Your task to perform on an android device: See recent photos Image 0: 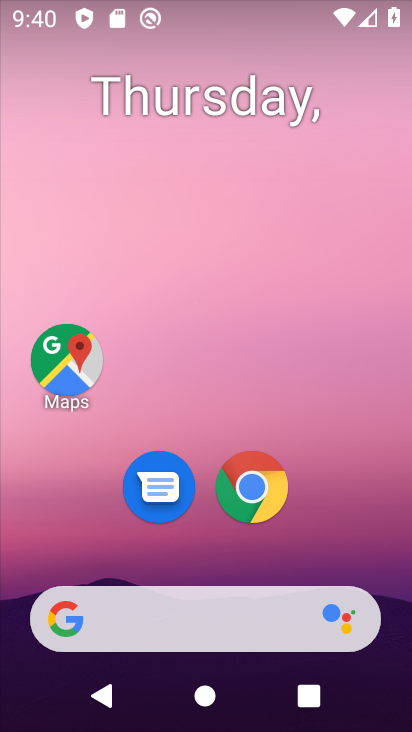
Step 0: drag from (328, 533) to (239, 267)
Your task to perform on an android device: See recent photos Image 1: 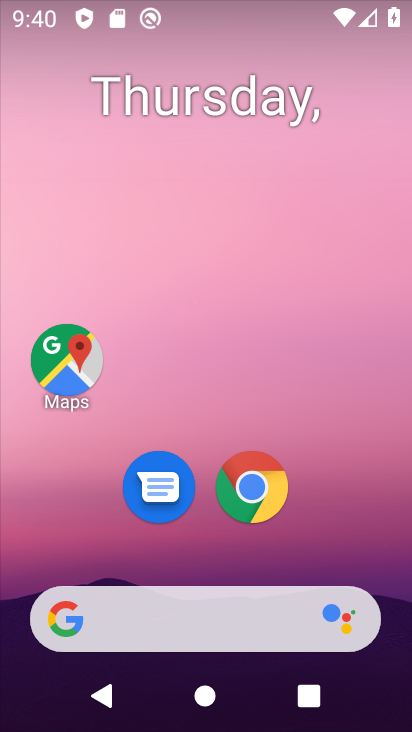
Step 1: drag from (333, 513) to (132, 119)
Your task to perform on an android device: See recent photos Image 2: 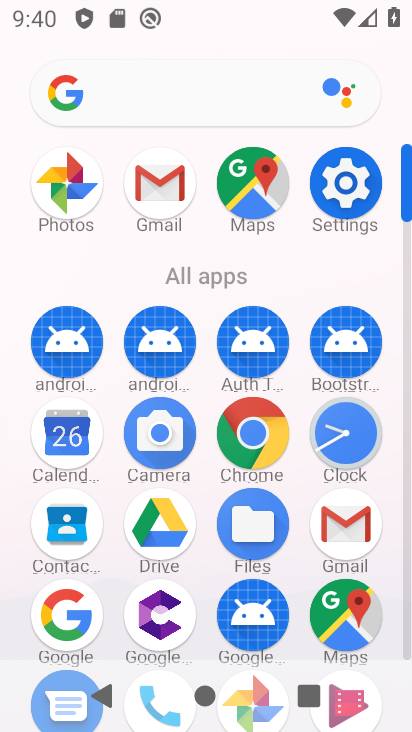
Step 2: click (68, 189)
Your task to perform on an android device: See recent photos Image 3: 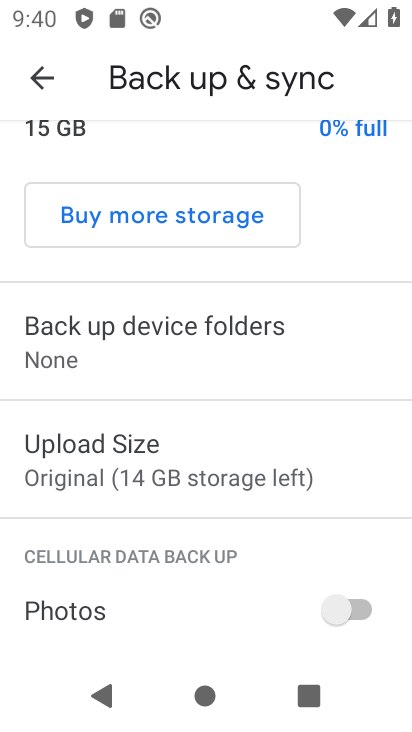
Step 3: task complete